Your task to perform on an android device: check android version Image 0: 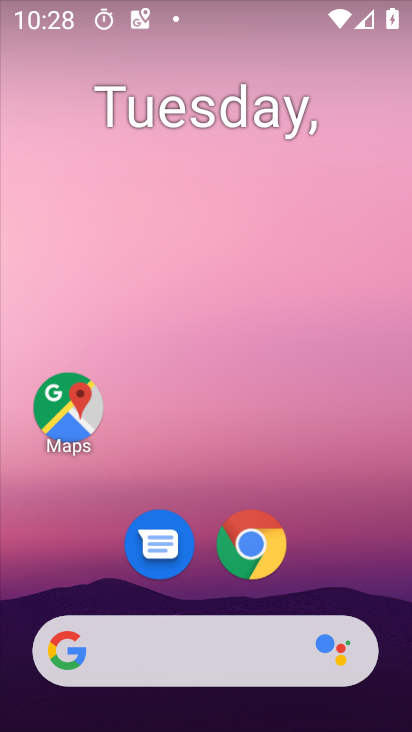
Step 0: drag from (393, 585) to (276, 144)
Your task to perform on an android device: check android version Image 1: 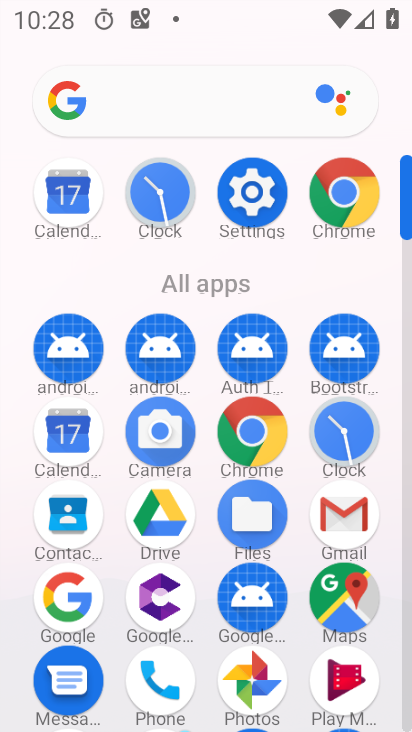
Step 1: click (254, 205)
Your task to perform on an android device: check android version Image 2: 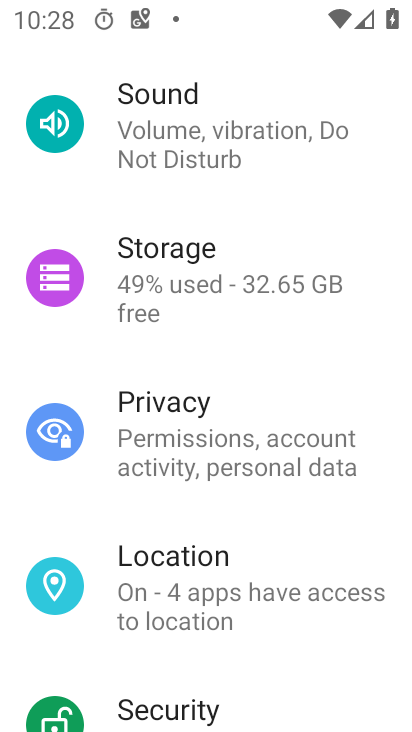
Step 2: drag from (272, 673) to (226, 154)
Your task to perform on an android device: check android version Image 3: 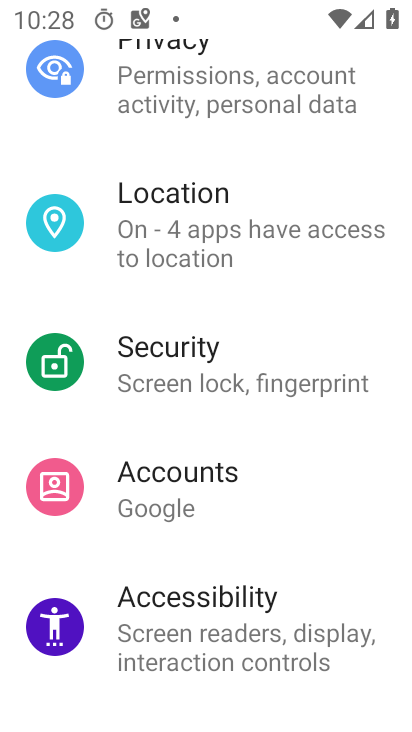
Step 3: drag from (304, 544) to (240, 70)
Your task to perform on an android device: check android version Image 4: 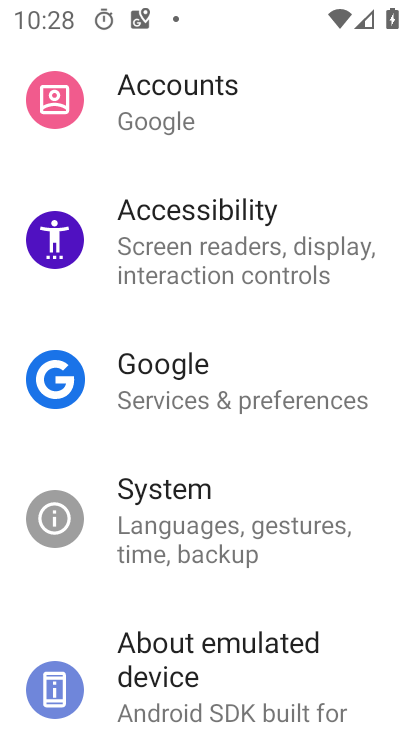
Step 4: drag from (270, 530) to (250, 355)
Your task to perform on an android device: check android version Image 5: 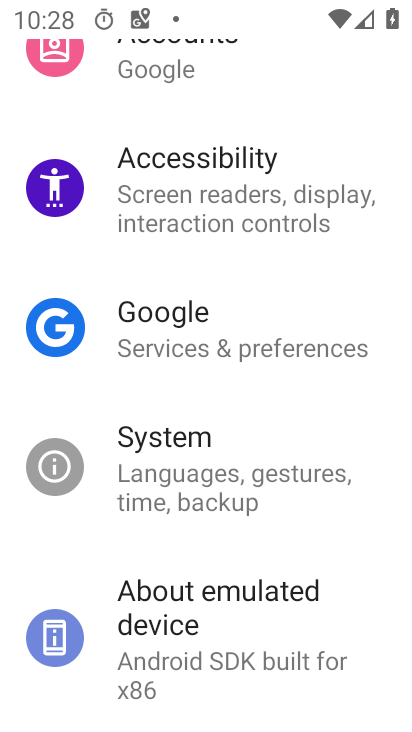
Step 5: click (267, 604)
Your task to perform on an android device: check android version Image 6: 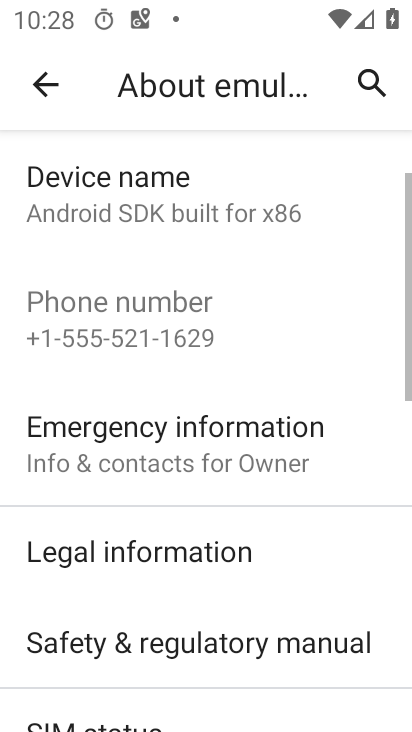
Step 6: drag from (293, 268) to (273, 641)
Your task to perform on an android device: check android version Image 7: 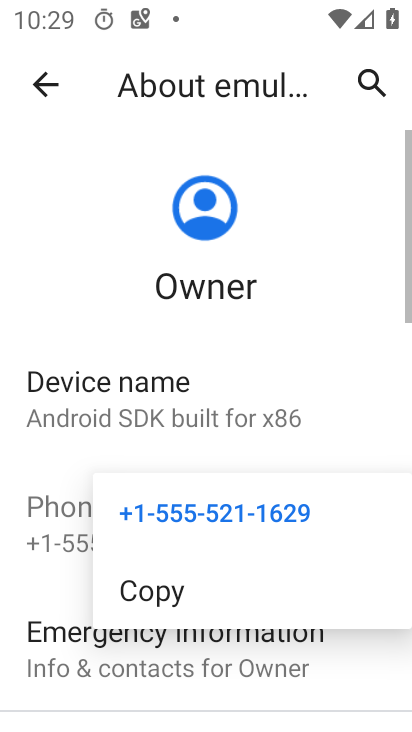
Step 7: click (62, 192)
Your task to perform on an android device: check android version Image 8: 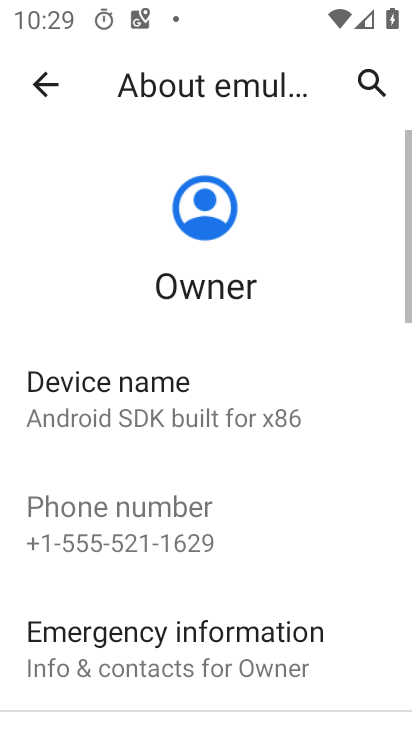
Step 8: drag from (342, 661) to (232, 197)
Your task to perform on an android device: check android version Image 9: 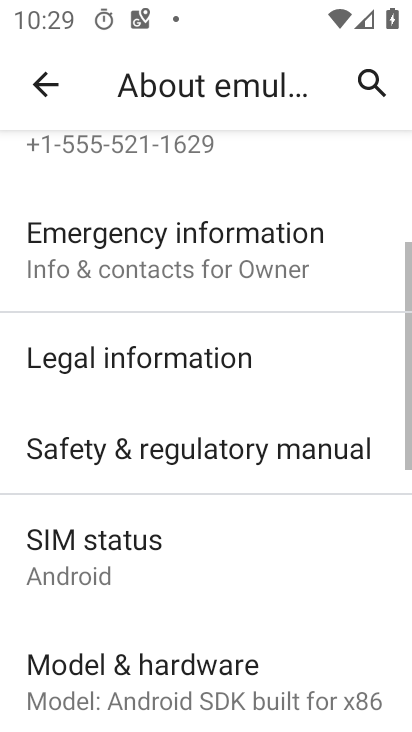
Step 9: drag from (280, 580) to (210, 198)
Your task to perform on an android device: check android version Image 10: 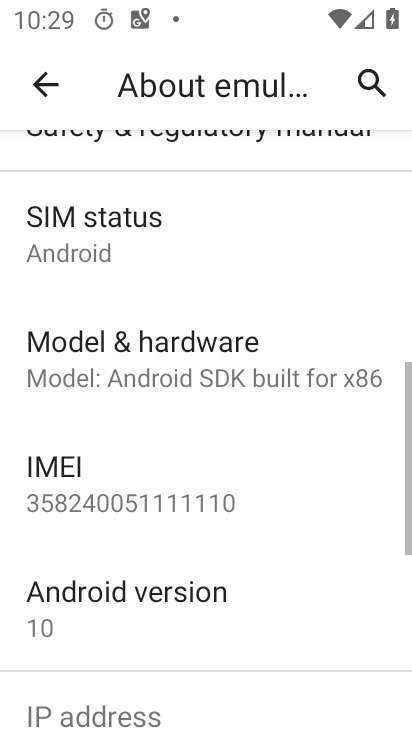
Step 10: click (259, 595)
Your task to perform on an android device: check android version Image 11: 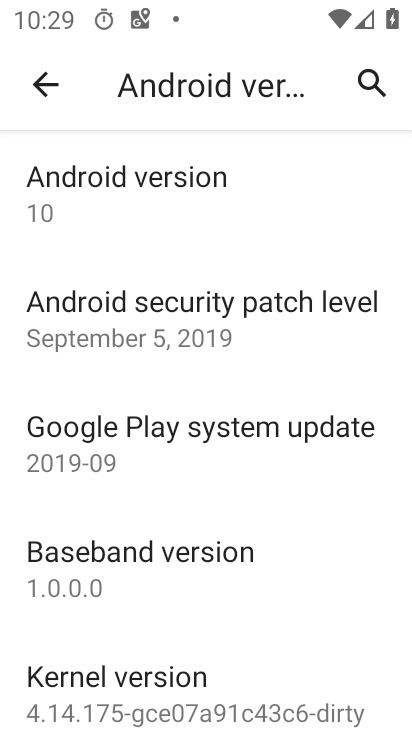
Step 11: task complete